Your task to perform on an android device: Go to Amazon Image 0: 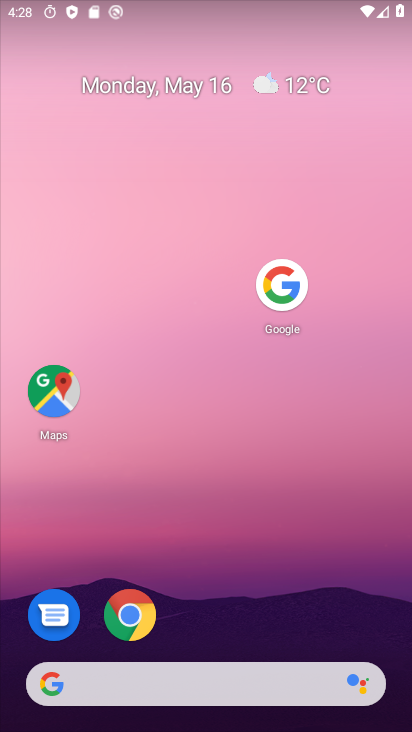
Step 0: drag from (229, 648) to (215, 7)
Your task to perform on an android device: Go to Amazon Image 1: 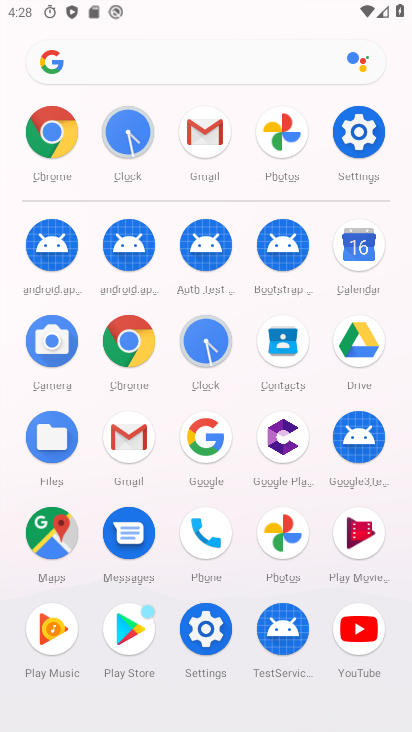
Step 1: click (138, 353)
Your task to perform on an android device: Go to Amazon Image 2: 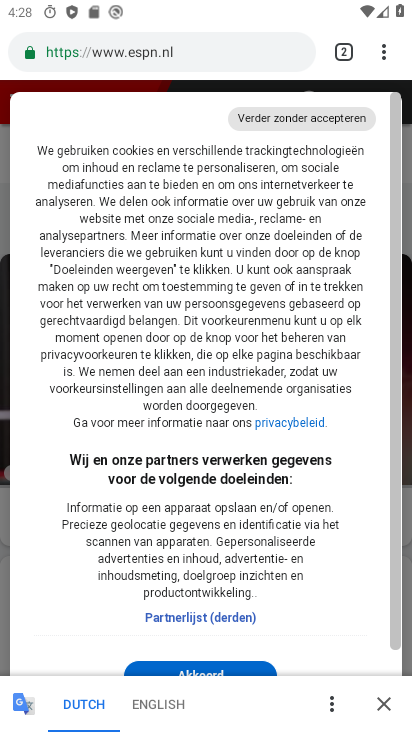
Step 2: click (346, 62)
Your task to perform on an android device: Go to Amazon Image 3: 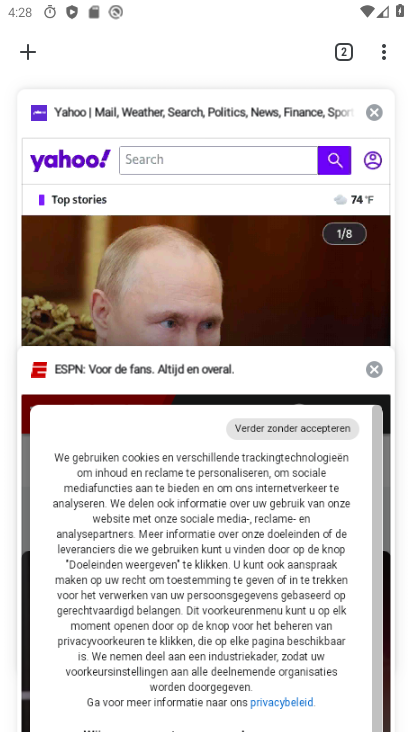
Step 3: click (38, 45)
Your task to perform on an android device: Go to Amazon Image 4: 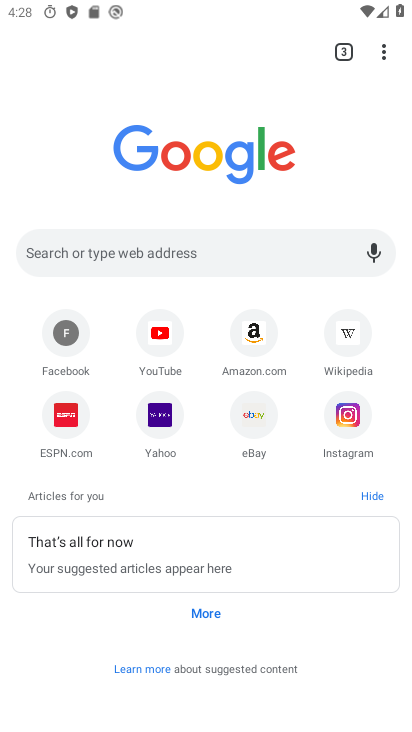
Step 4: click (251, 326)
Your task to perform on an android device: Go to Amazon Image 5: 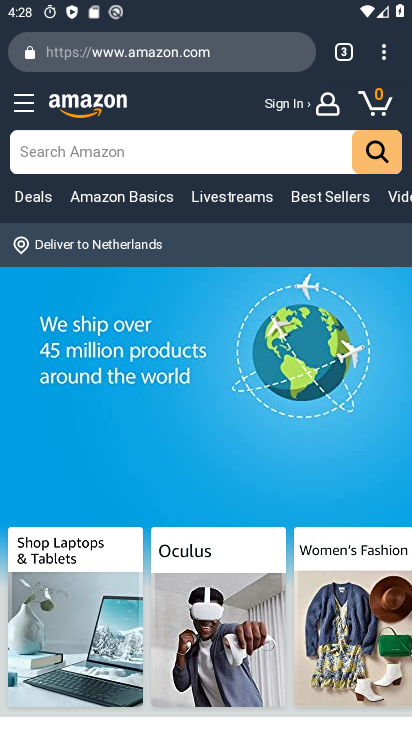
Step 5: task complete